Your task to perform on an android device: add a label to a message in the gmail app Image 0: 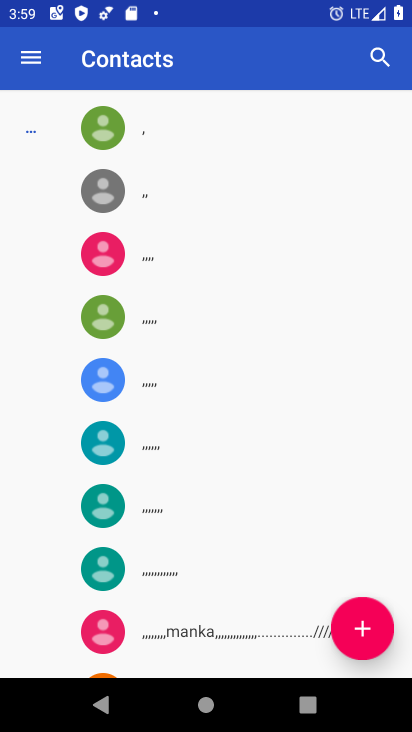
Step 0: press home button
Your task to perform on an android device: add a label to a message in the gmail app Image 1: 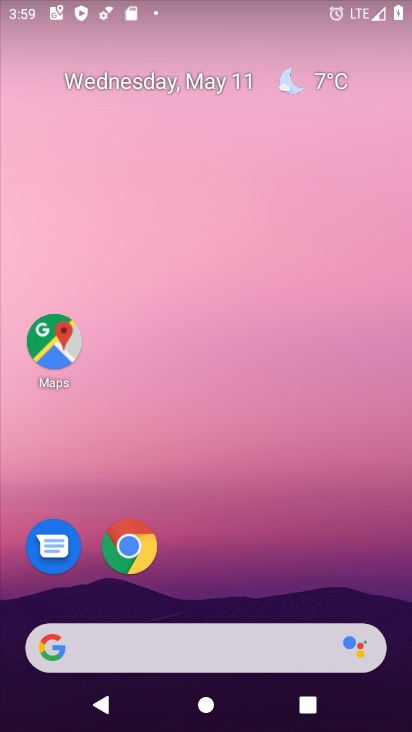
Step 1: drag from (268, 521) to (306, 6)
Your task to perform on an android device: add a label to a message in the gmail app Image 2: 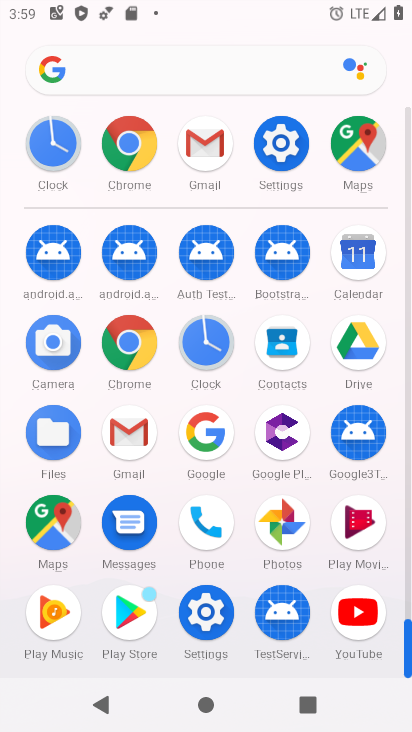
Step 2: click (118, 446)
Your task to perform on an android device: add a label to a message in the gmail app Image 3: 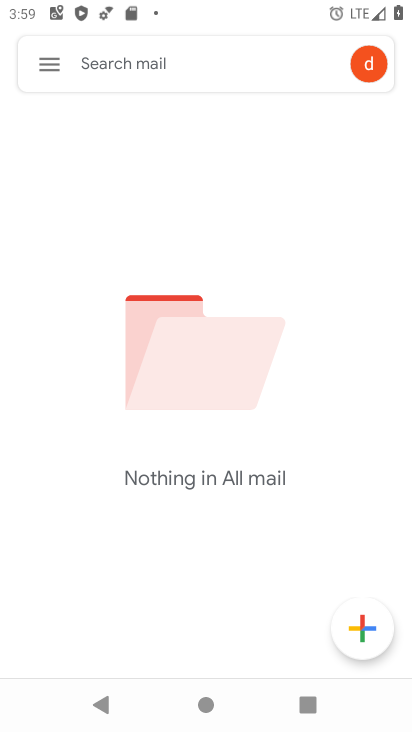
Step 3: task complete